Your task to perform on an android device: Open Yahoo.com Image 0: 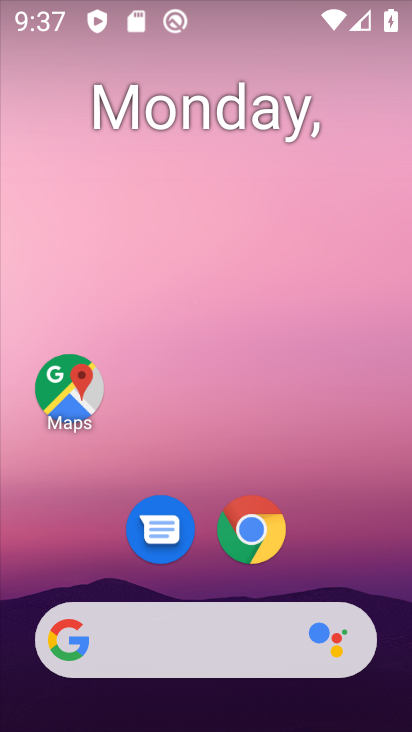
Step 0: click (235, 538)
Your task to perform on an android device: Open Yahoo.com Image 1: 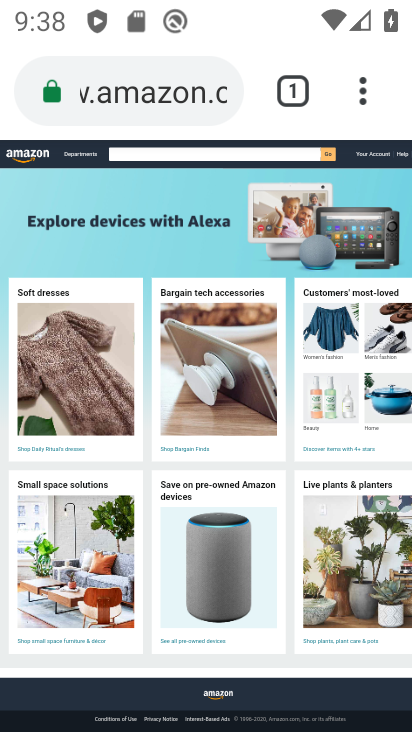
Step 1: task complete